Your task to perform on an android device: Open Google Maps Image 0: 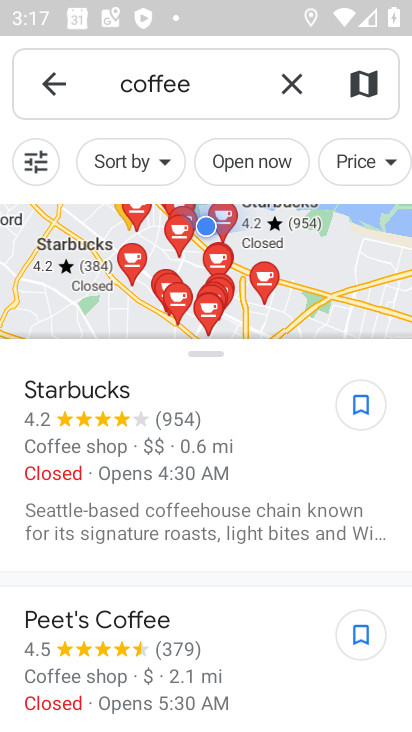
Step 0: press home button
Your task to perform on an android device: Open Google Maps Image 1: 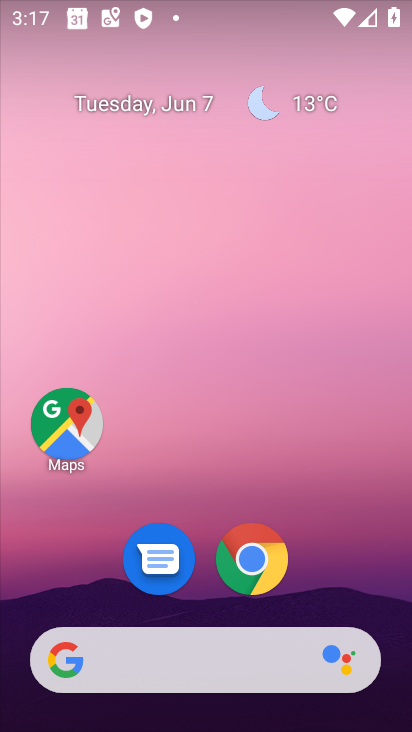
Step 1: click (67, 429)
Your task to perform on an android device: Open Google Maps Image 2: 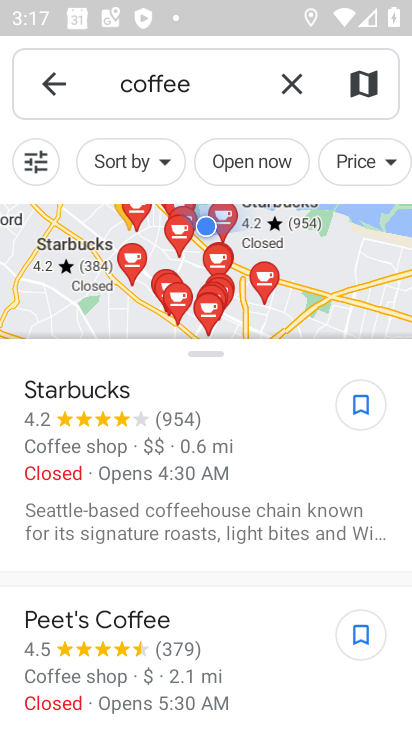
Step 2: click (294, 85)
Your task to perform on an android device: Open Google Maps Image 3: 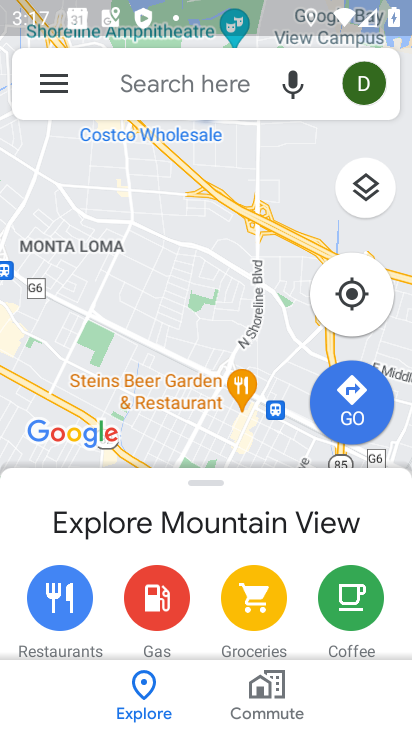
Step 3: task complete